Your task to perform on an android device: turn off javascript in the chrome app Image 0: 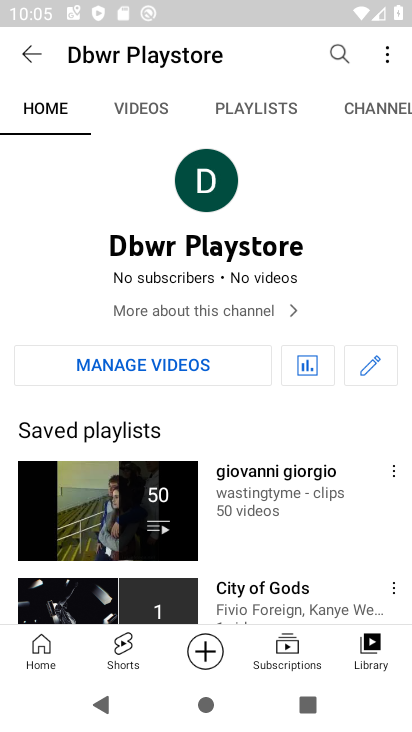
Step 0: press home button
Your task to perform on an android device: turn off javascript in the chrome app Image 1: 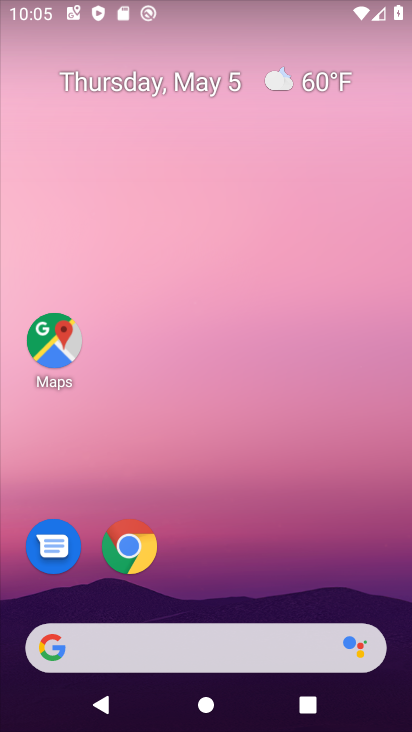
Step 1: click (113, 543)
Your task to perform on an android device: turn off javascript in the chrome app Image 2: 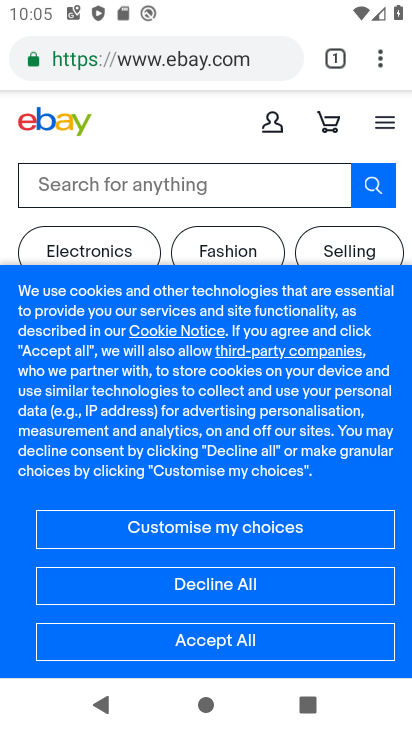
Step 2: click (383, 67)
Your task to perform on an android device: turn off javascript in the chrome app Image 3: 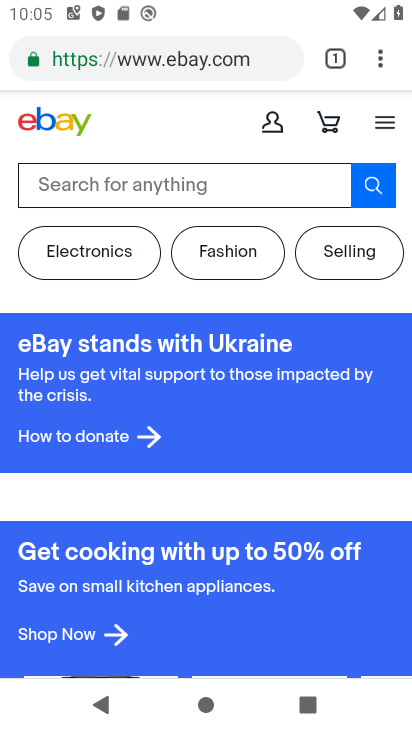
Step 3: click (383, 67)
Your task to perform on an android device: turn off javascript in the chrome app Image 4: 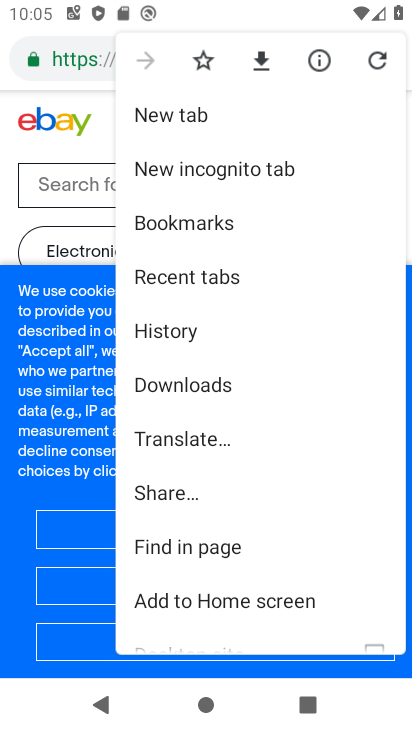
Step 4: drag from (218, 568) to (187, 301)
Your task to perform on an android device: turn off javascript in the chrome app Image 5: 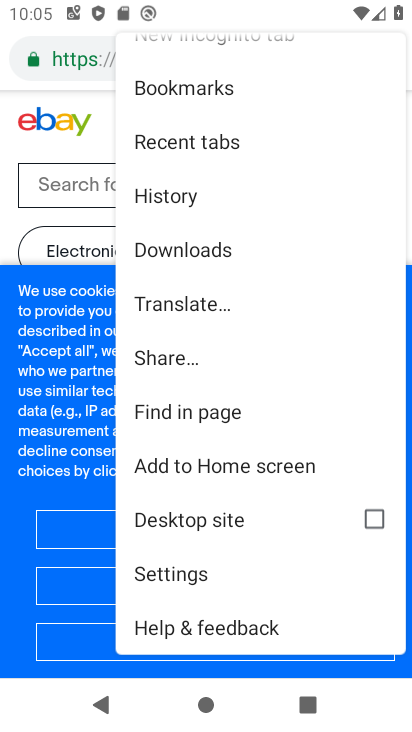
Step 5: click (227, 570)
Your task to perform on an android device: turn off javascript in the chrome app Image 6: 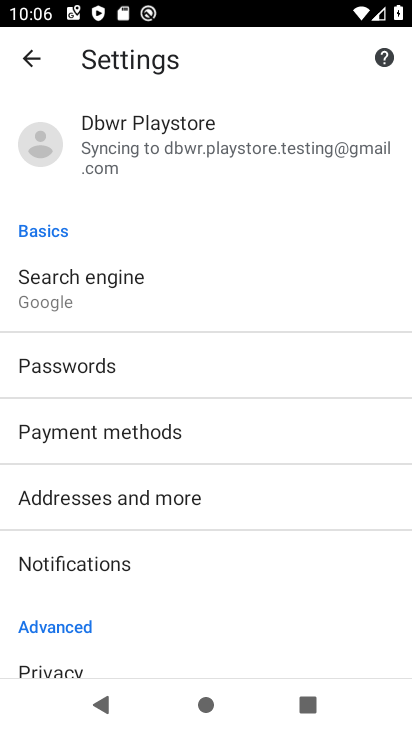
Step 6: drag from (208, 634) to (182, 490)
Your task to perform on an android device: turn off javascript in the chrome app Image 7: 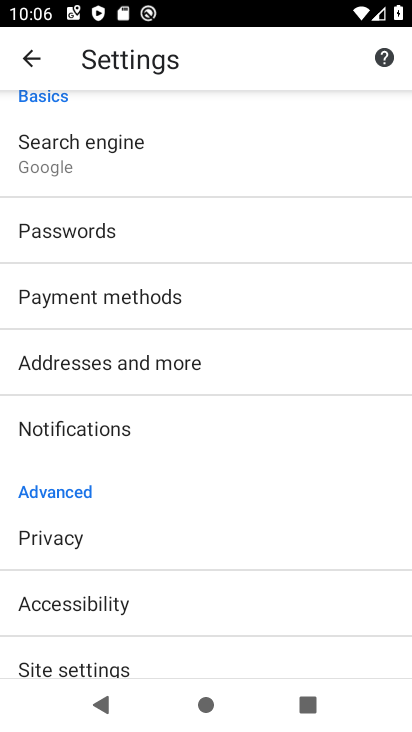
Step 7: click (158, 662)
Your task to perform on an android device: turn off javascript in the chrome app Image 8: 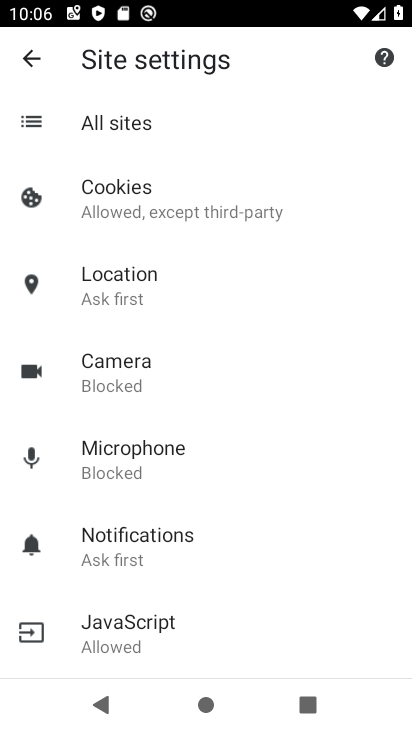
Step 8: click (144, 621)
Your task to perform on an android device: turn off javascript in the chrome app Image 9: 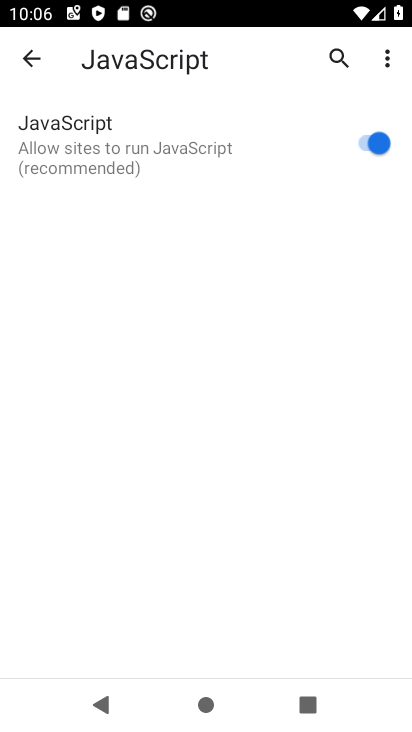
Step 9: click (372, 147)
Your task to perform on an android device: turn off javascript in the chrome app Image 10: 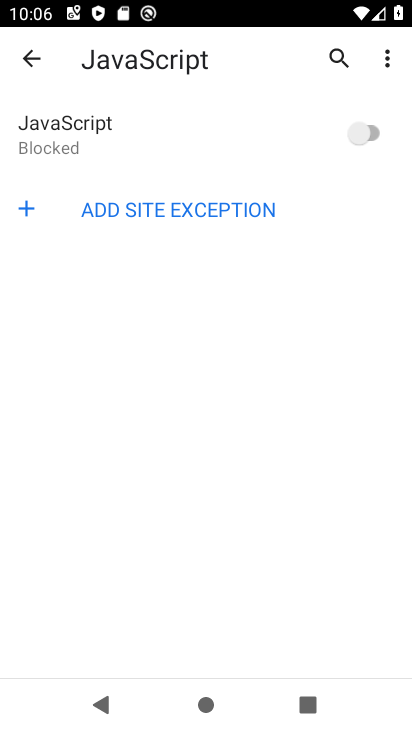
Step 10: task complete